Your task to perform on an android device: What's the weather going to be this weekend? Image 0: 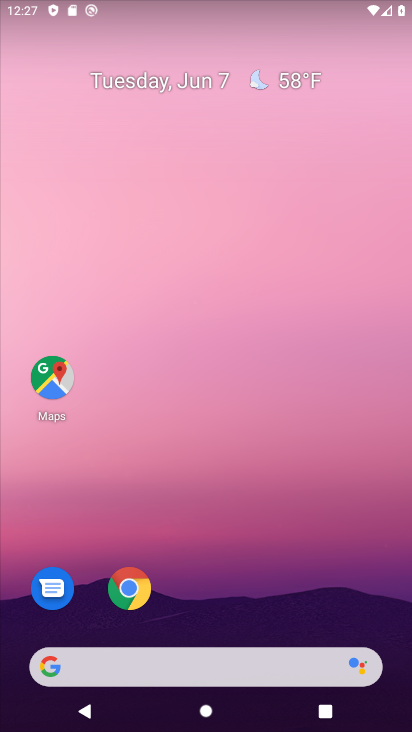
Step 0: drag from (306, 619) to (183, 9)
Your task to perform on an android device: What's the weather going to be this weekend? Image 1: 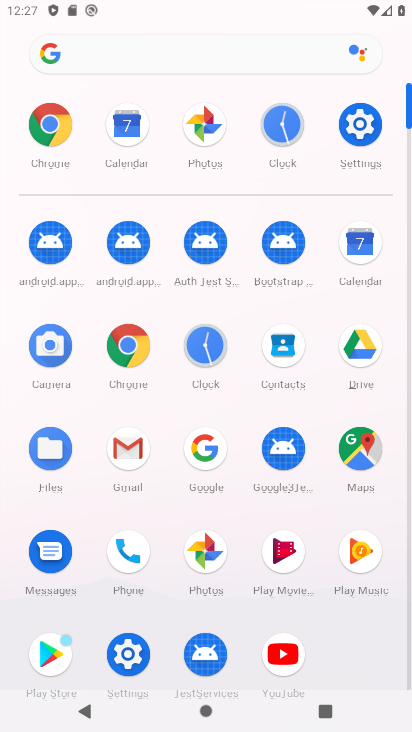
Step 1: click (106, 113)
Your task to perform on an android device: What's the weather going to be this weekend? Image 2: 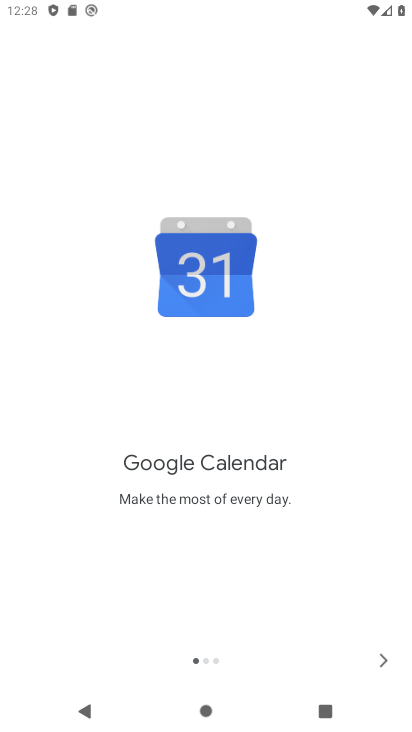
Step 2: click (395, 663)
Your task to perform on an android device: What's the weather going to be this weekend? Image 3: 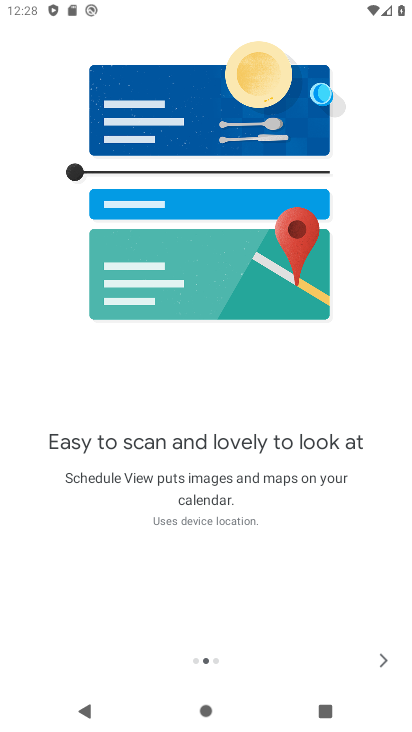
Step 3: click (395, 663)
Your task to perform on an android device: What's the weather going to be this weekend? Image 4: 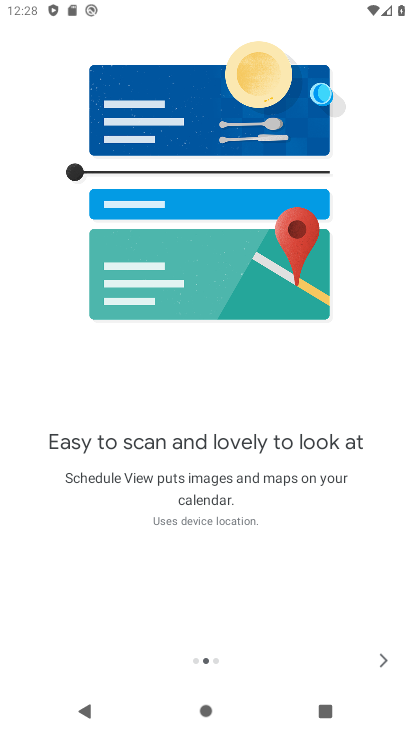
Step 4: click (395, 663)
Your task to perform on an android device: What's the weather going to be this weekend? Image 5: 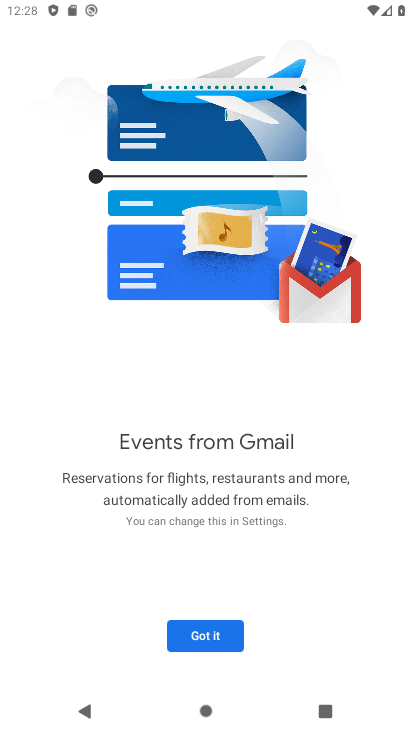
Step 5: click (223, 632)
Your task to perform on an android device: What's the weather going to be this weekend? Image 6: 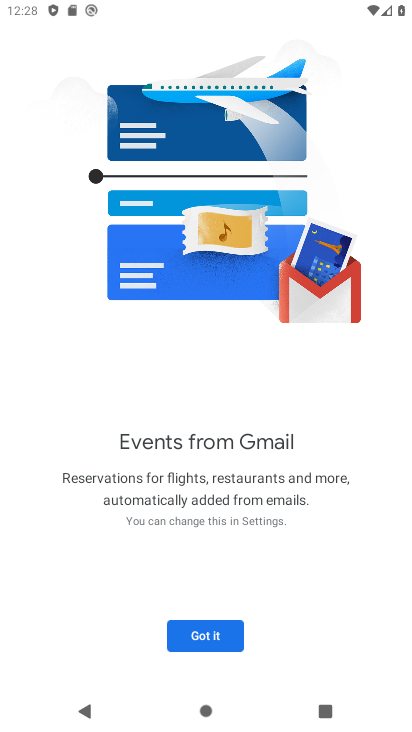
Step 6: task complete